Your task to perform on an android device: Show the shopping cart on newegg. Search for "beats solo 3" on newegg, select the first entry, and add it to the cart. Image 0: 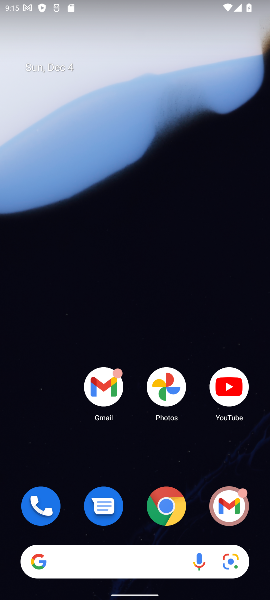
Step 0: click (180, 501)
Your task to perform on an android device: Show the shopping cart on newegg. Search for "beats solo 3" on newegg, select the first entry, and add it to the cart. Image 1: 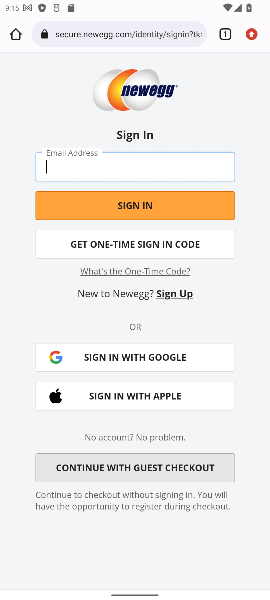
Step 1: click (122, 31)
Your task to perform on an android device: Show the shopping cart on newegg. Search for "beats solo 3" on newegg, select the first entry, and add it to the cart. Image 2: 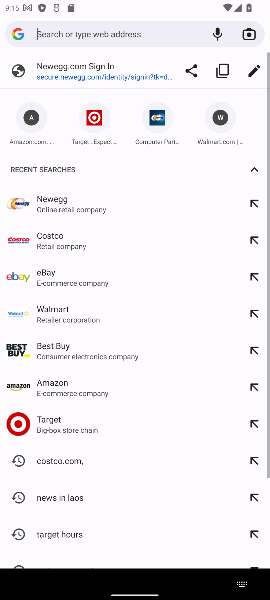
Step 2: click (64, 207)
Your task to perform on an android device: Show the shopping cart on newegg. Search for "beats solo 3" on newegg, select the first entry, and add it to the cart. Image 3: 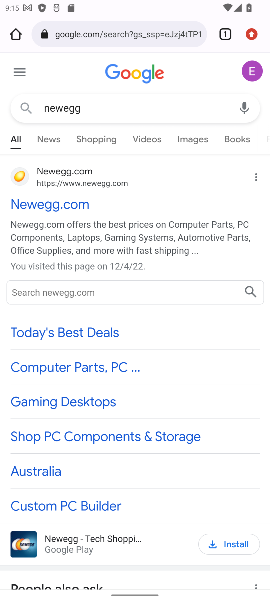
Step 3: click (64, 207)
Your task to perform on an android device: Show the shopping cart on newegg. Search for "beats solo 3" on newegg, select the first entry, and add it to the cart. Image 4: 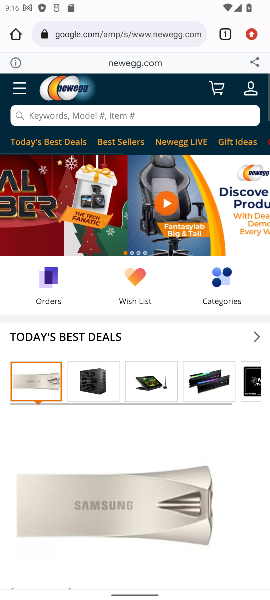
Step 4: click (175, 112)
Your task to perform on an android device: Show the shopping cart on newegg. Search for "beats solo 3" on newegg, select the first entry, and add it to the cart. Image 5: 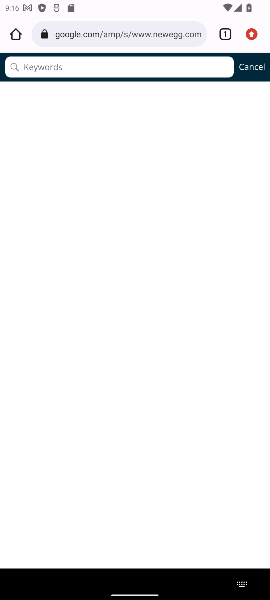
Step 5: click (80, 69)
Your task to perform on an android device: Show the shopping cart on newegg. Search for "beats solo 3" on newegg, select the first entry, and add it to the cart. Image 6: 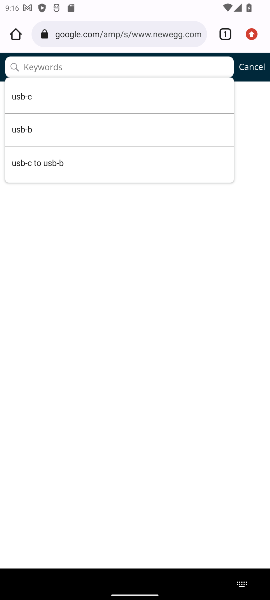
Step 6: type "beats solo 3"
Your task to perform on an android device: Show the shopping cart on newegg. Search for "beats solo 3" on newegg, select the first entry, and add it to the cart. Image 7: 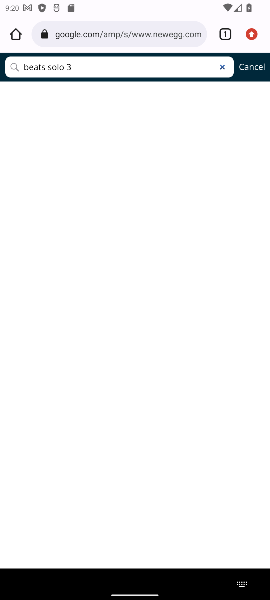
Step 7: task complete